Your task to perform on an android device: Open notification settings Image 0: 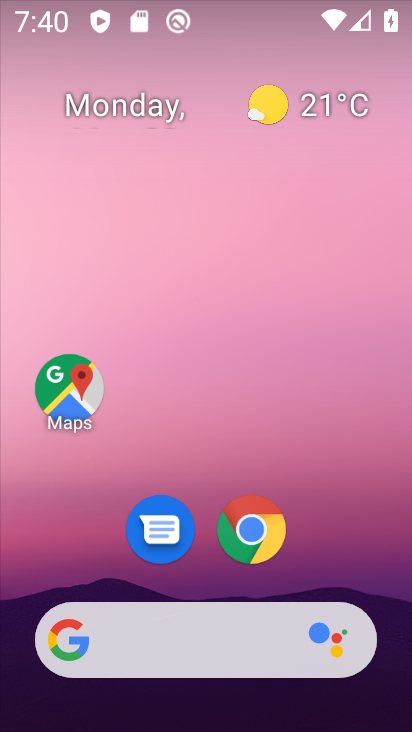
Step 0: drag from (325, 569) to (313, 17)
Your task to perform on an android device: Open notification settings Image 1: 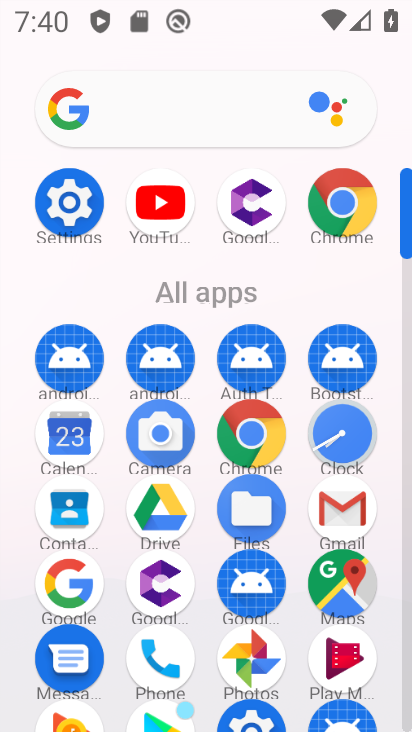
Step 1: click (68, 204)
Your task to perform on an android device: Open notification settings Image 2: 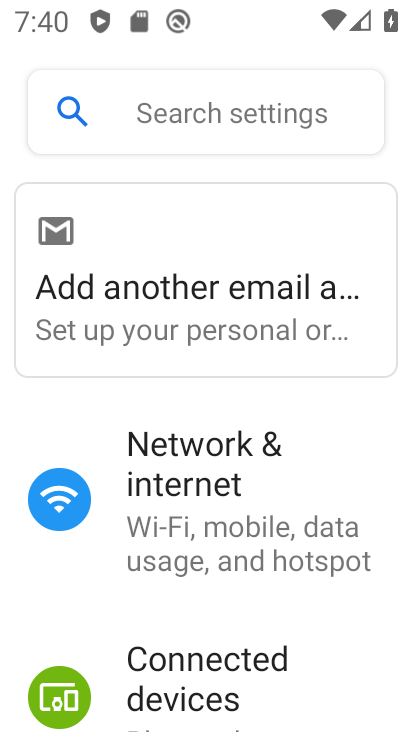
Step 2: drag from (165, 660) to (202, 115)
Your task to perform on an android device: Open notification settings Image 3: 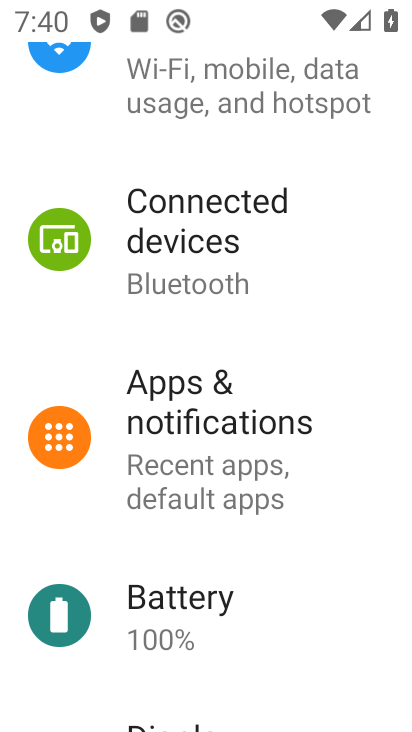
Step 3: click (203, 446)
Your task to perform on an android device: Open notification settings Image 4: 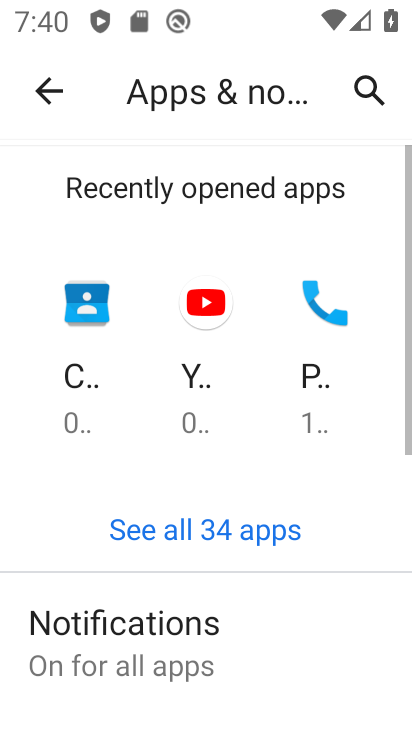
Step 4: click (187, 647)
Your task to perform on an android device: Open notification settings Image 5: 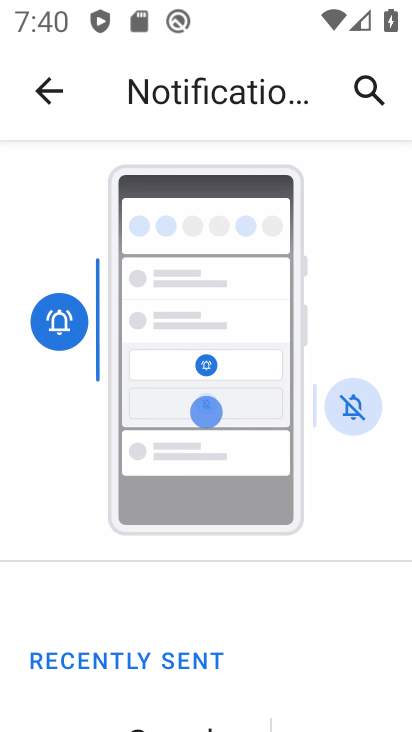
Step 5: task complete